Your task to perform on an android device: turn on sleep mode Image 0: 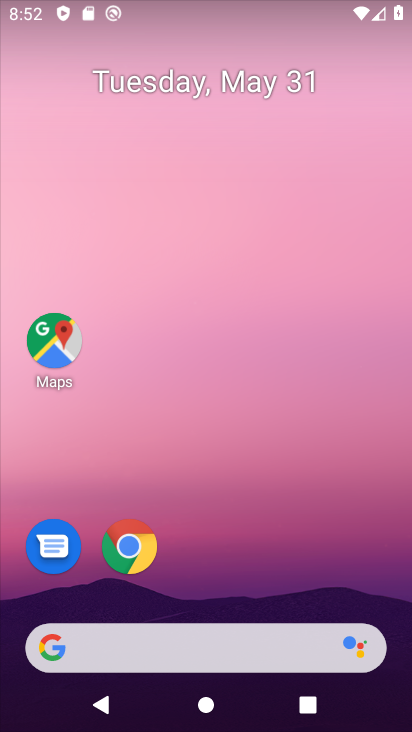
Step 0: drag from (393, 696) to (336, 46)
Your task to perform on an android device: turn on sleep mode Image 1: 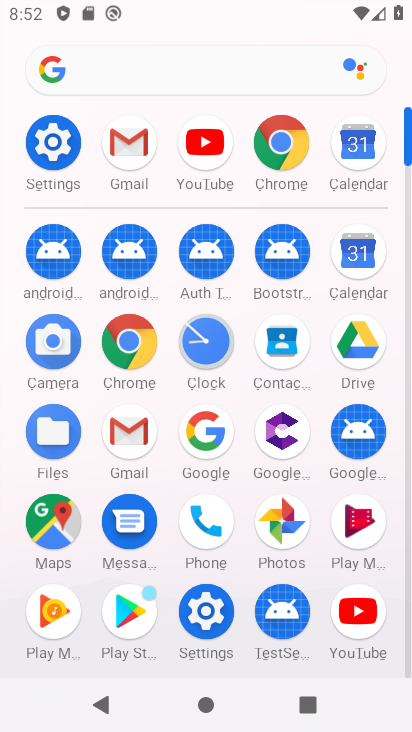
Step 1: click (58, 149)
Your task to perform on an android device: turn on sleep mode Image 2: 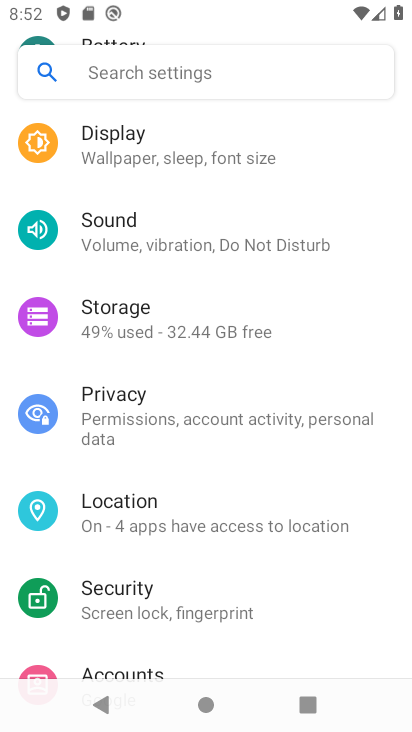
Step 2: click (113, 148)
Your task to perform on an android device: turn on sleep mode Image 3: 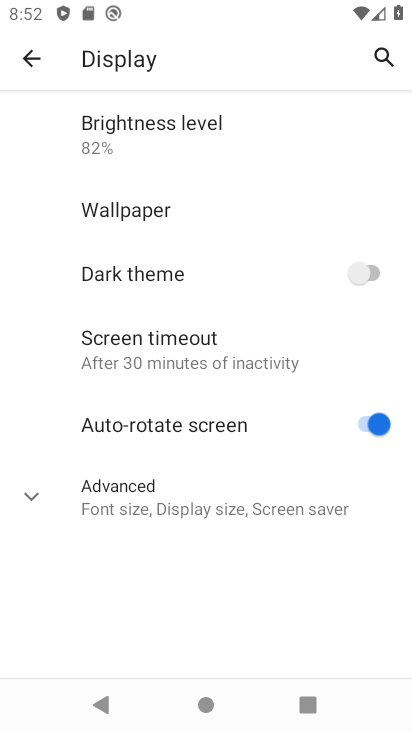
Step 3: click (139, 357)
Your task to perform on an android device: turn on sleep mode Image 4: 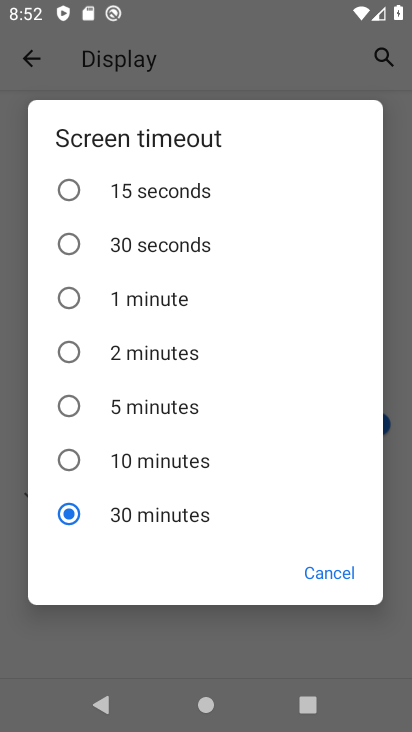
Step 4: task complete